Your task to perform on an android device: Open display settings Image 0: 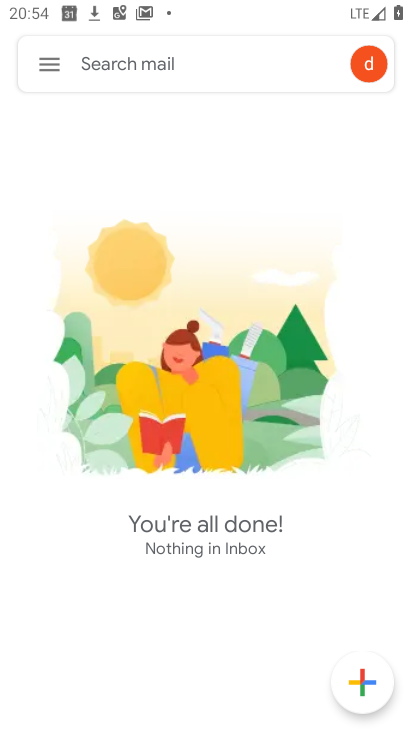
Step 0: press home button
Your task to perform on an android device: Open display settings Image 1: 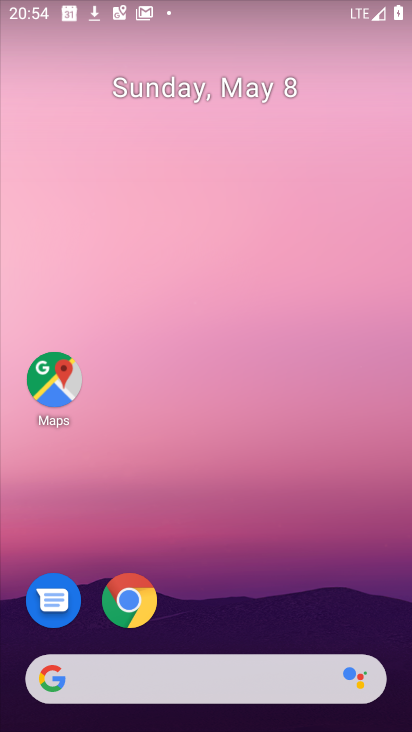
Step 1: drag from (283, 663) to (230, 246)
Your task to perform on an android device: Open display settings Image 2: 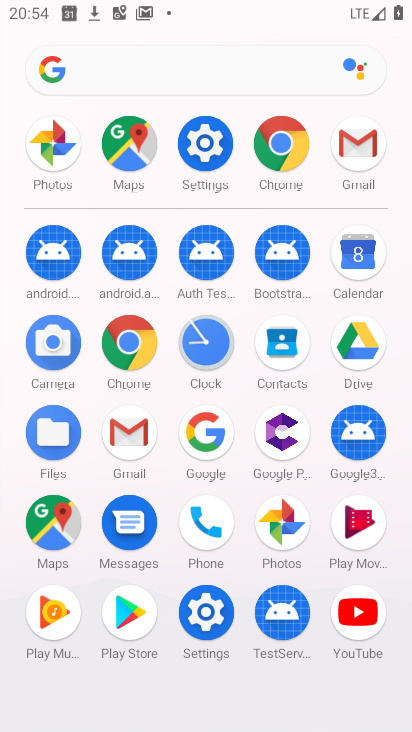
Step 2: click (218, 604)
Your task to perform on an android device: Open display settings Image 3: 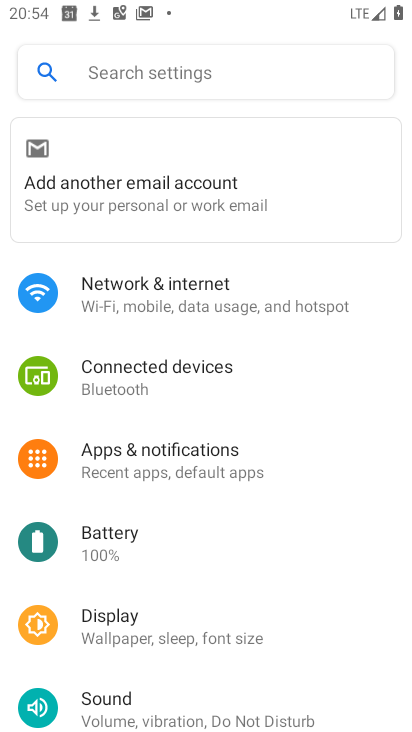
Step 3: click (130, 613)
Your task to perform on an android device: Open display settings Image 4: 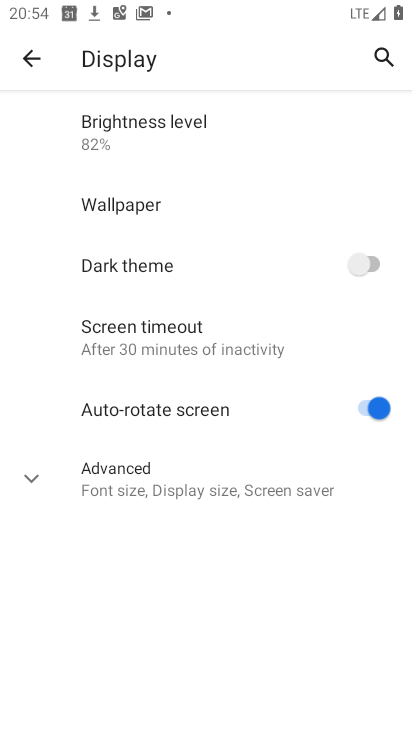
Step 4: task complete